Your task to perform on an android device: turn off location history Image 0: 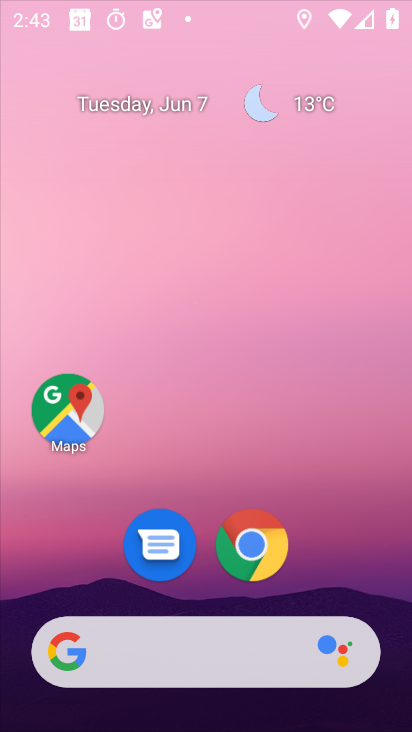
Step 0: press home button
Your task to perform on an android device: turn off location history Image 1: 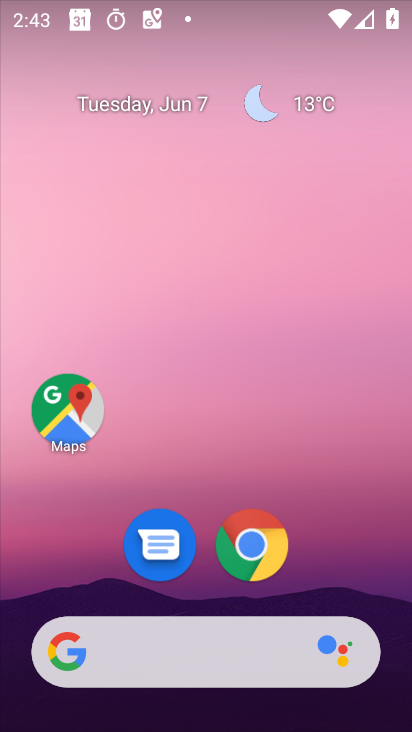
Step 1: click (304, 105)
Your task to perform on an android device: turn off location history Image 2: 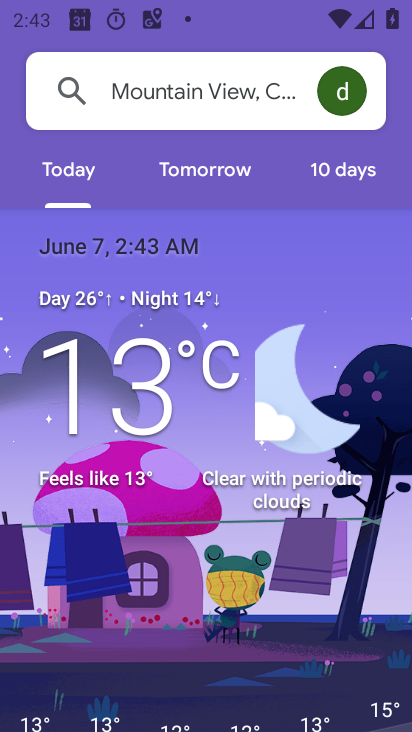
Step 2: press home button
Your task to perform on an android device: turn off location history Image 3: 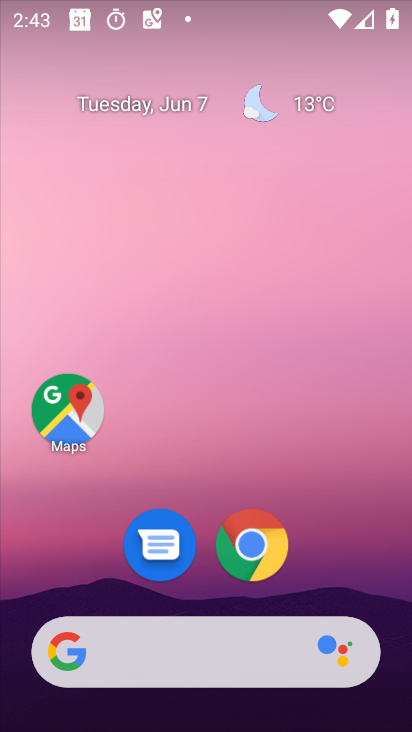
Step 3: drag from (345, 558) to (139, 3)
Your task to perform on an android device: turn off location history Image 4: 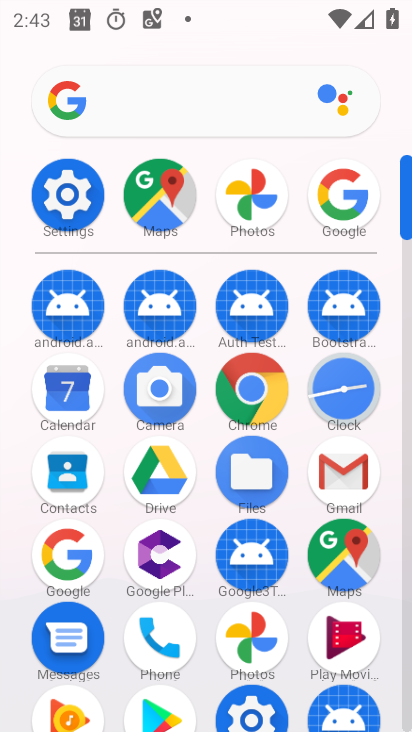
Step 4: click (71, 187)
Your task to perform on an android device: turn off location history Image 5: 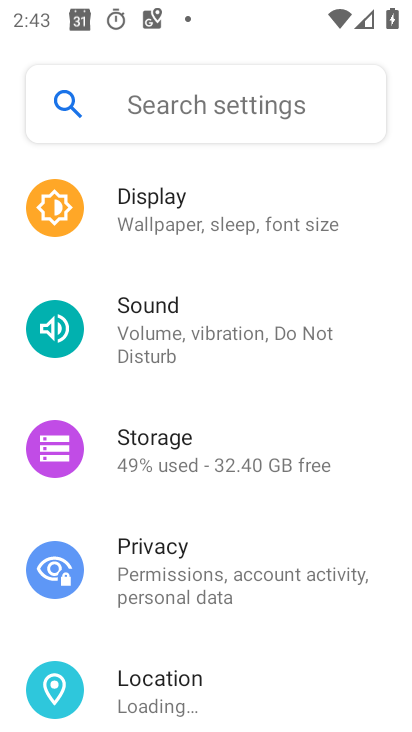
Step 5: click (205, 703)
Your task to perform on an android device: turn off location history Image 6: 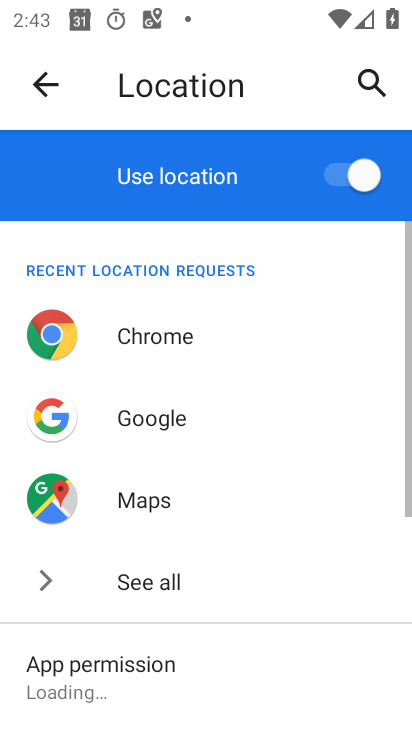
Step 6: drag from (233, 617) to (270, 26)
Your task to perform on an android device: turn off location history Image 7: 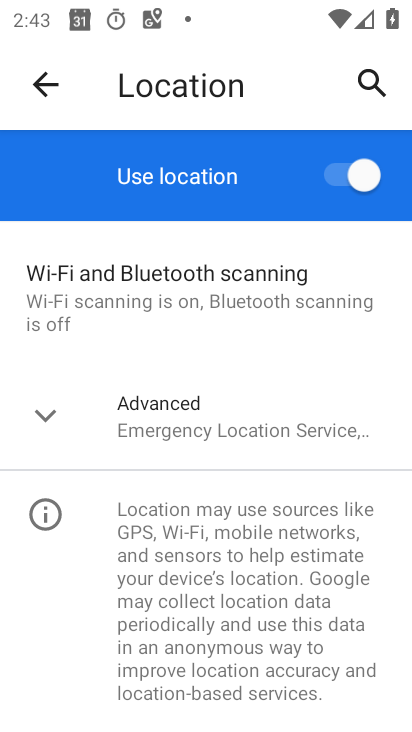
Step 7: click (186, 412)
Your task to perform on an android device: turn off location history Image 8: 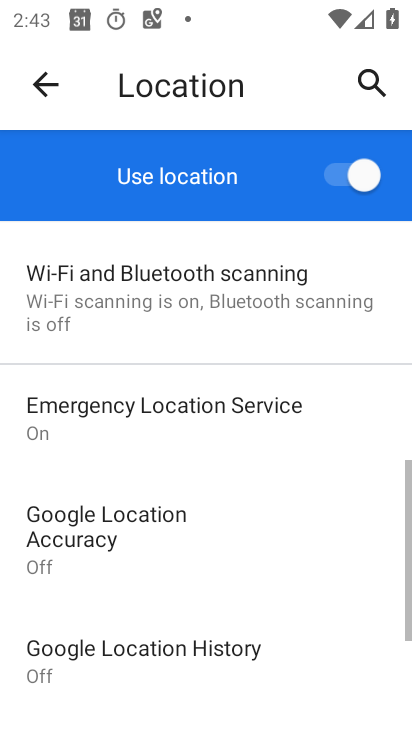
Step 8: drag from (220, 700) to (258, 372)
Your task to perform on an android device: turn off location history Image 9: 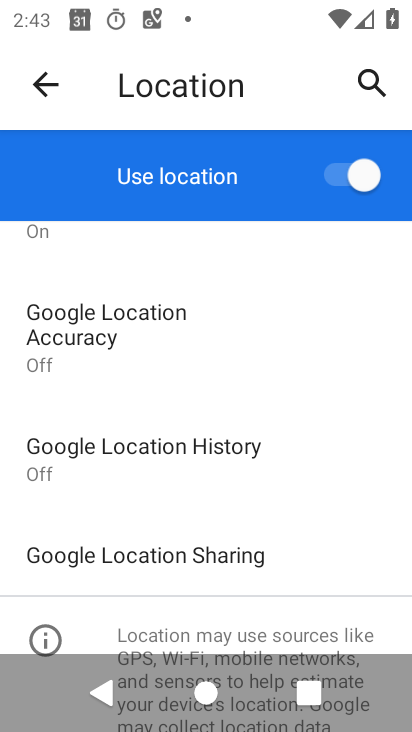
Step 9: click (224, 454)
Your task to perform on an android device: turn off location history Image 10: 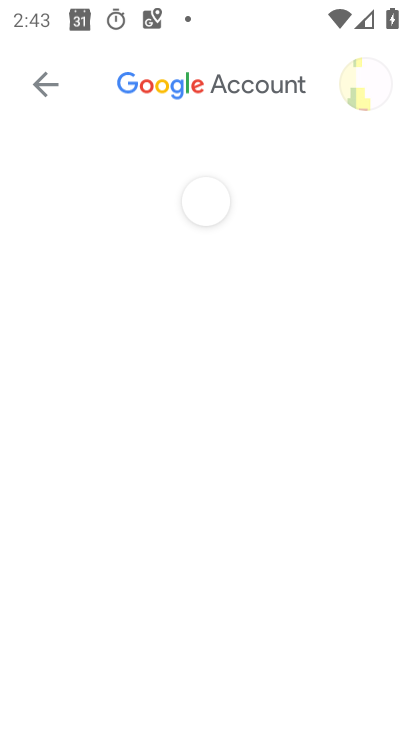
Step 10: task complete